Your task to perform on an android device: Search for the best websites on the internet Image 0: 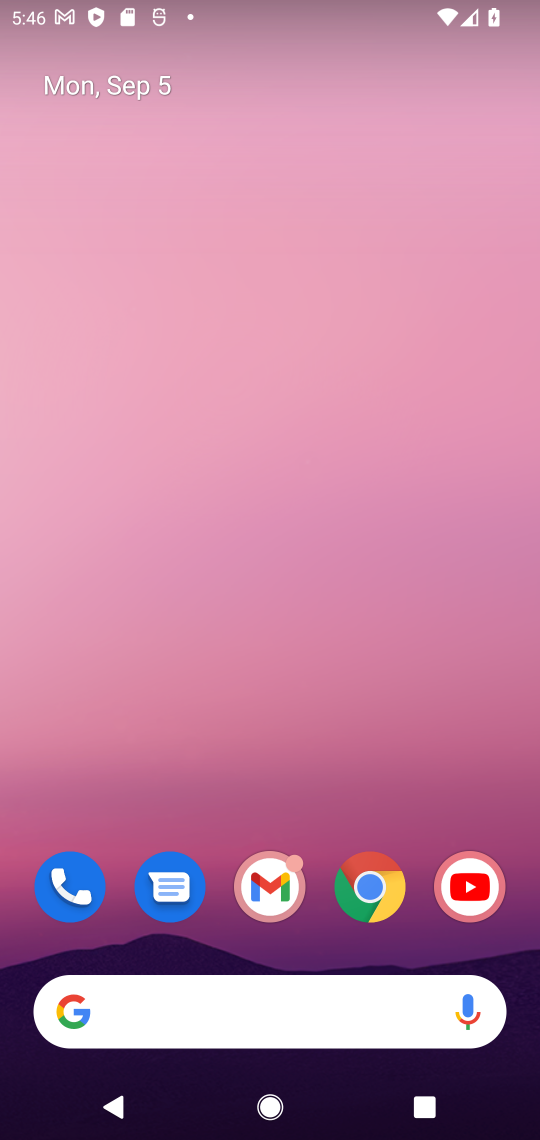
Step 0: drag from (433, 17) to (364, 4)
Your task to perform on an android device: Search for the best websites on the internet Image 1: 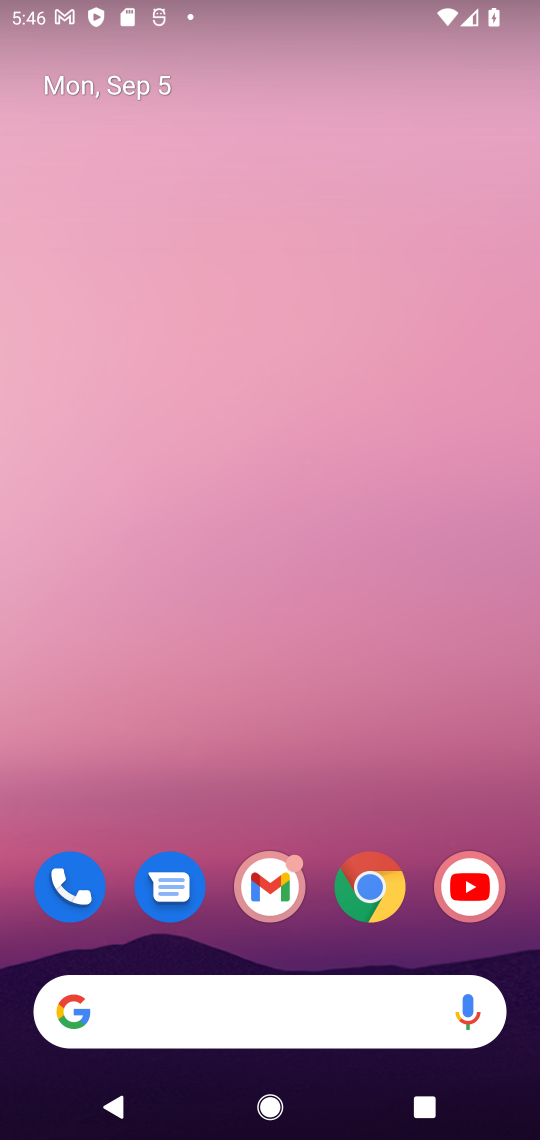
Step 1: drag from (246, 772) to (362, 29)
Your task to perform on an android device: Search for the best websites on the internet Image 2: 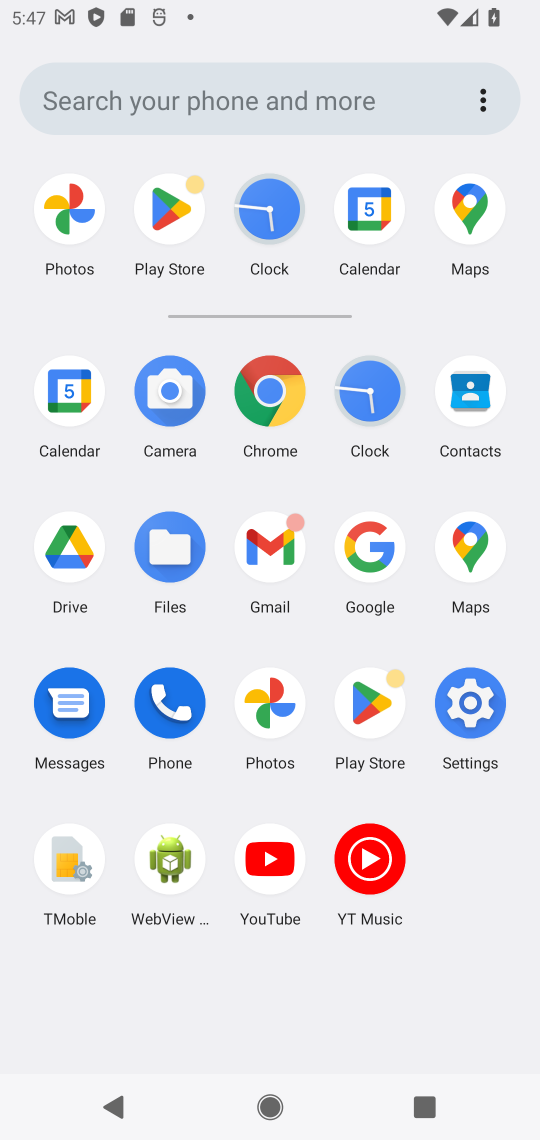
Step 2: click (276, 383)
Your task to perform on an android device: Search for the best websites on the internet Image 3: 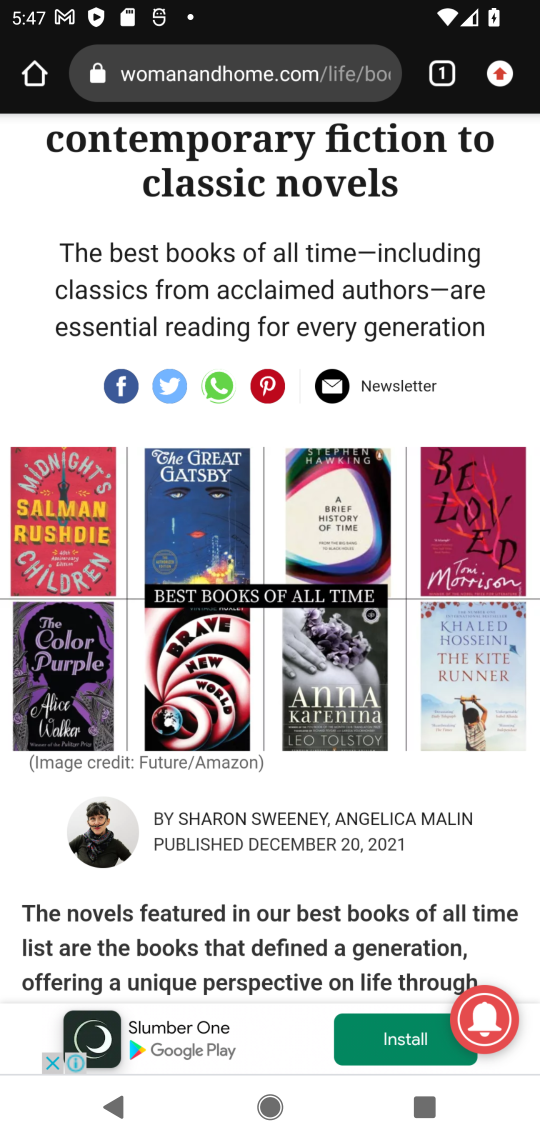
Step 3: click (301, 73)
Your task to perform on an android device: Search for the best websites on the internet Image 4: 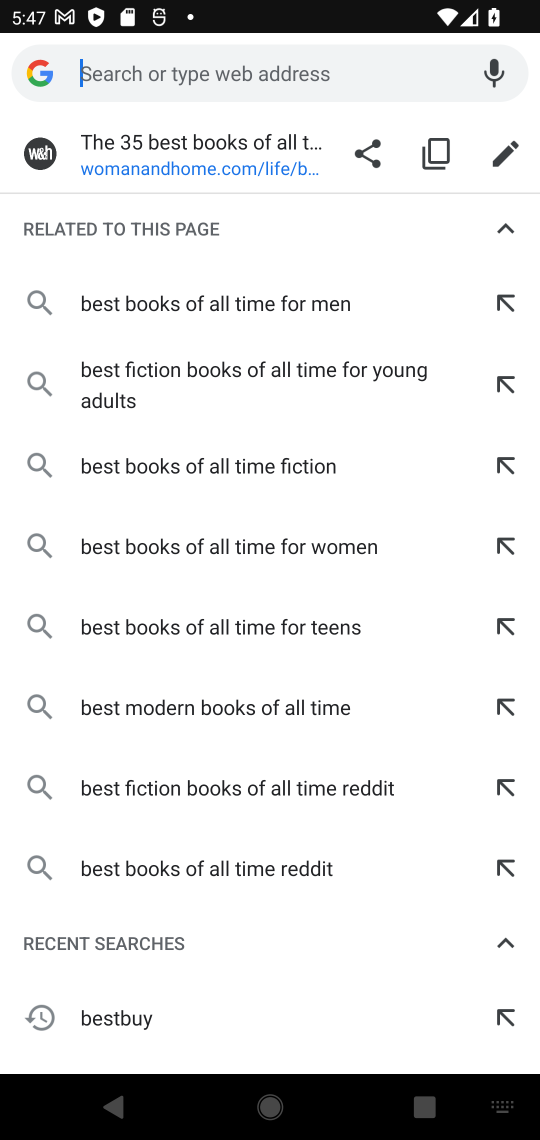
Step 4: type "best website on the internet"
Your task to perform on an android device: Search for the best websites on the internet Image 5: 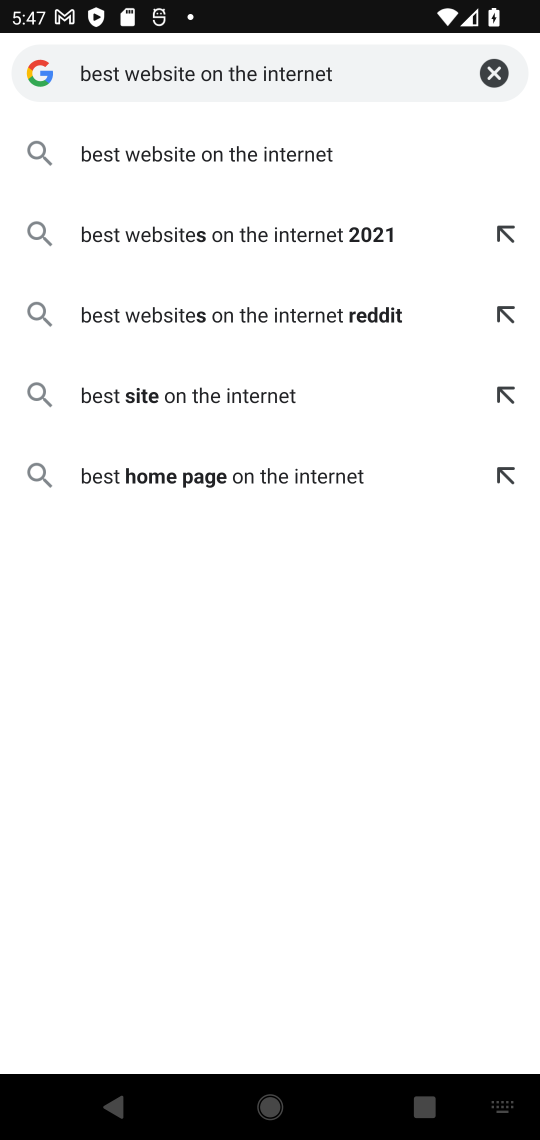
Step 5: press enter
Your task to perform on an android device: Search for the best websites on the internet Image 6: 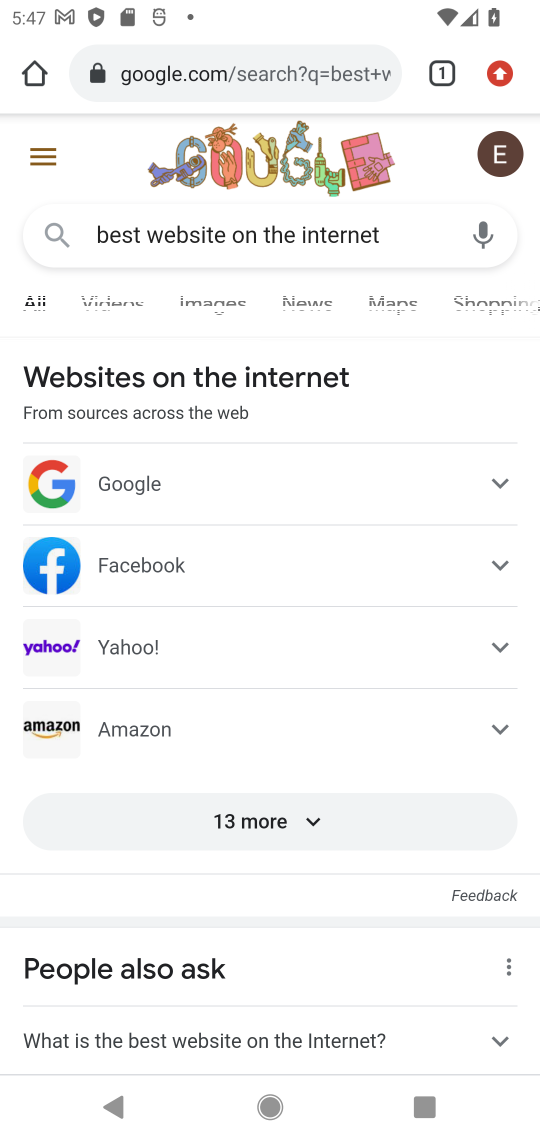
Step 6: drag from (312, 918) to (379, 29)
Your task to perform on an android device: Search for the best websites on the internet Image 7: 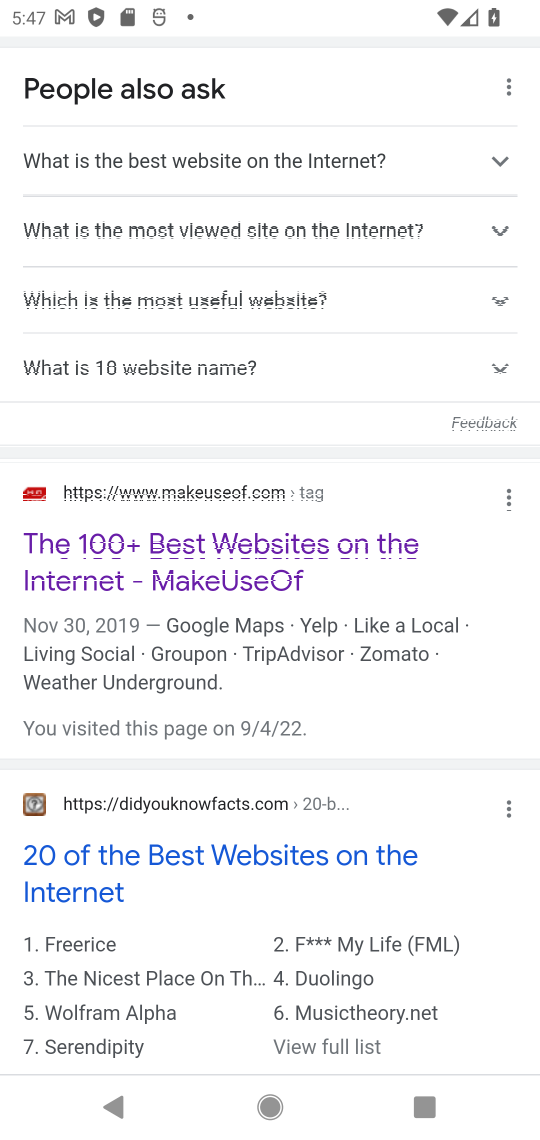
Step 7: click (213, 545)
Your task to perform on an android device: Search for the best websites on the internet Image 8: 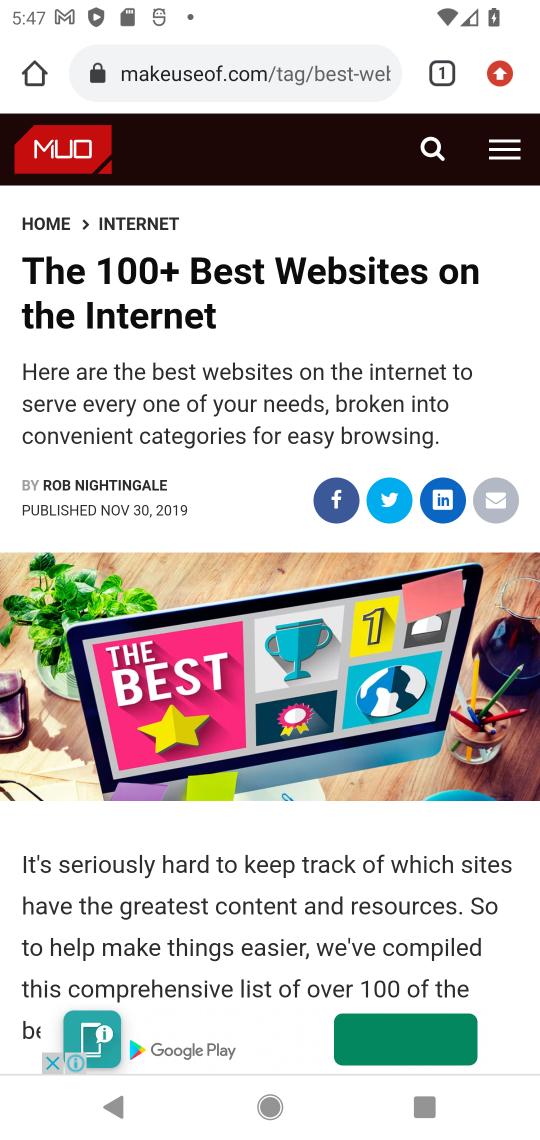
Step 8: task complete